Your task to perform on an android device: Search for seafood restaurants on Google Maps Image 0: 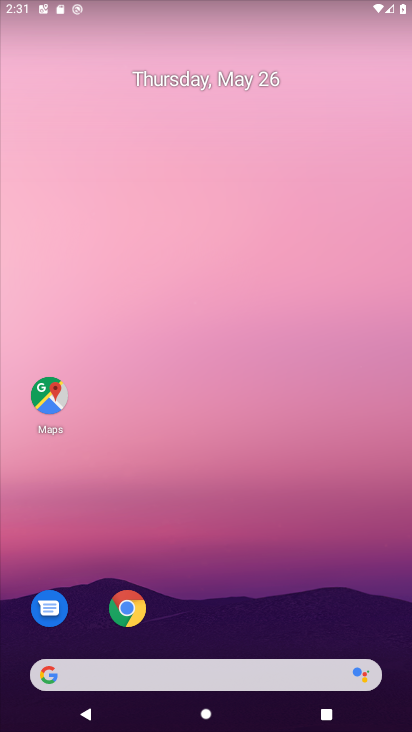
Step 0: click (30, 394)
Your task to perform on an android device: Search for seafood restaurants on Google Maps Image 1: 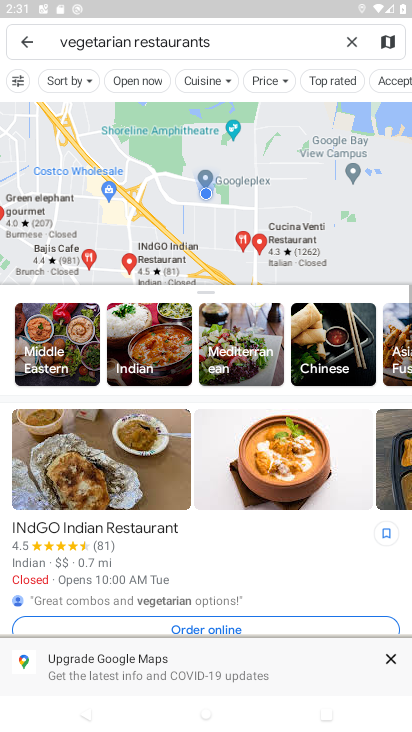
Step 1: click (348, 34)
Your task to perform on an android device: Search for seafood restaurants on Google Maps Image 2: 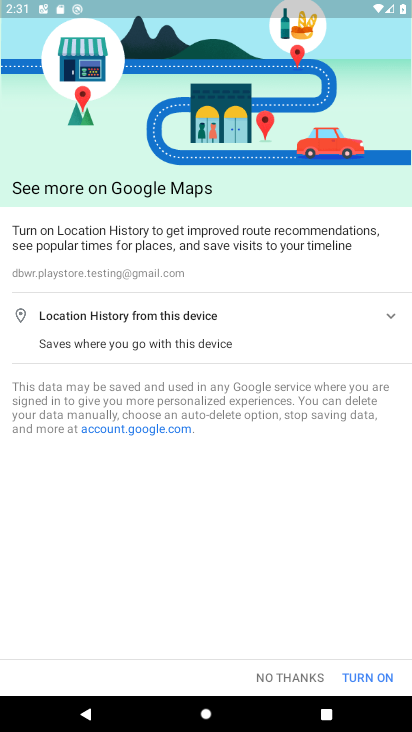
Step 2: click (302, 676)
Your task to perform on an android device: Search for seafood restaurants on Google Maps Image 3: 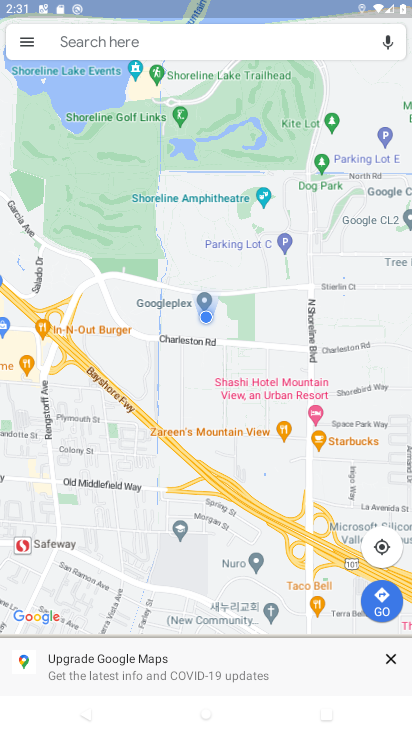
Step 3: click (135, 52)
Your task to perform on an android device: Search for seafood restaurants on Google Maps Image 4: 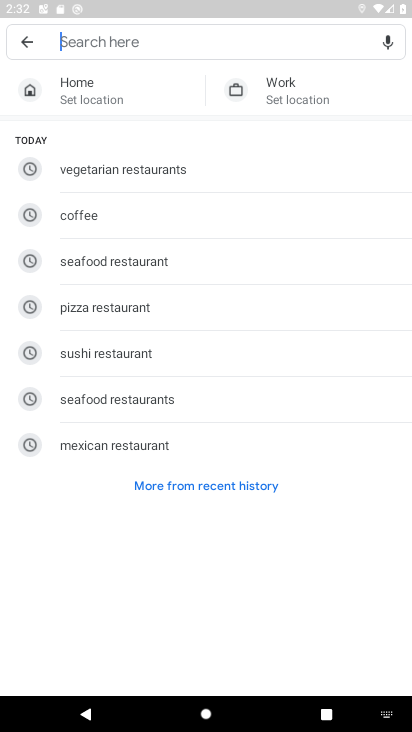
Step 4: type "seafood restaurants"
Your task to perform on an android device: Search for seafood restaurants on Google Maps Image 5: 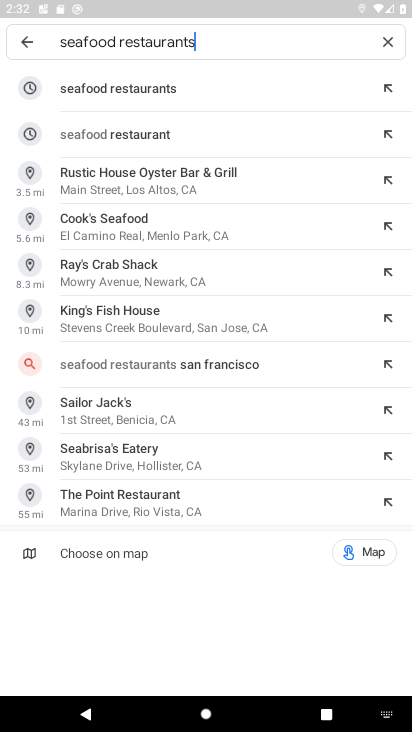
Step 5: click (209, 91)
Your task to perform on an android device: Search for seafood restaurants on Google Maps Image 6: 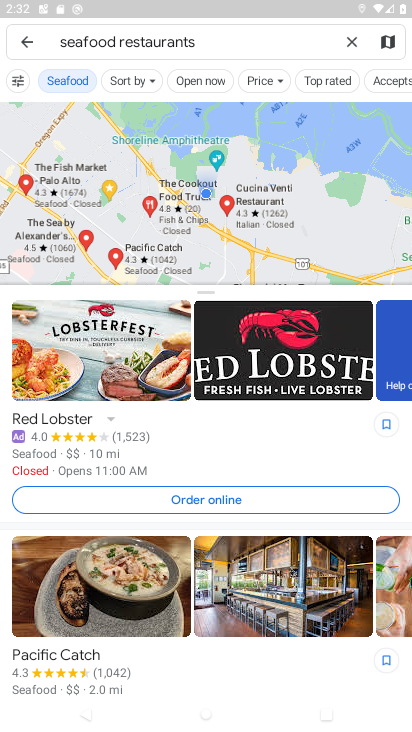
Step 6: task complete